Your task to perform on an android device: Show me popular videos on Youtube Image 0: 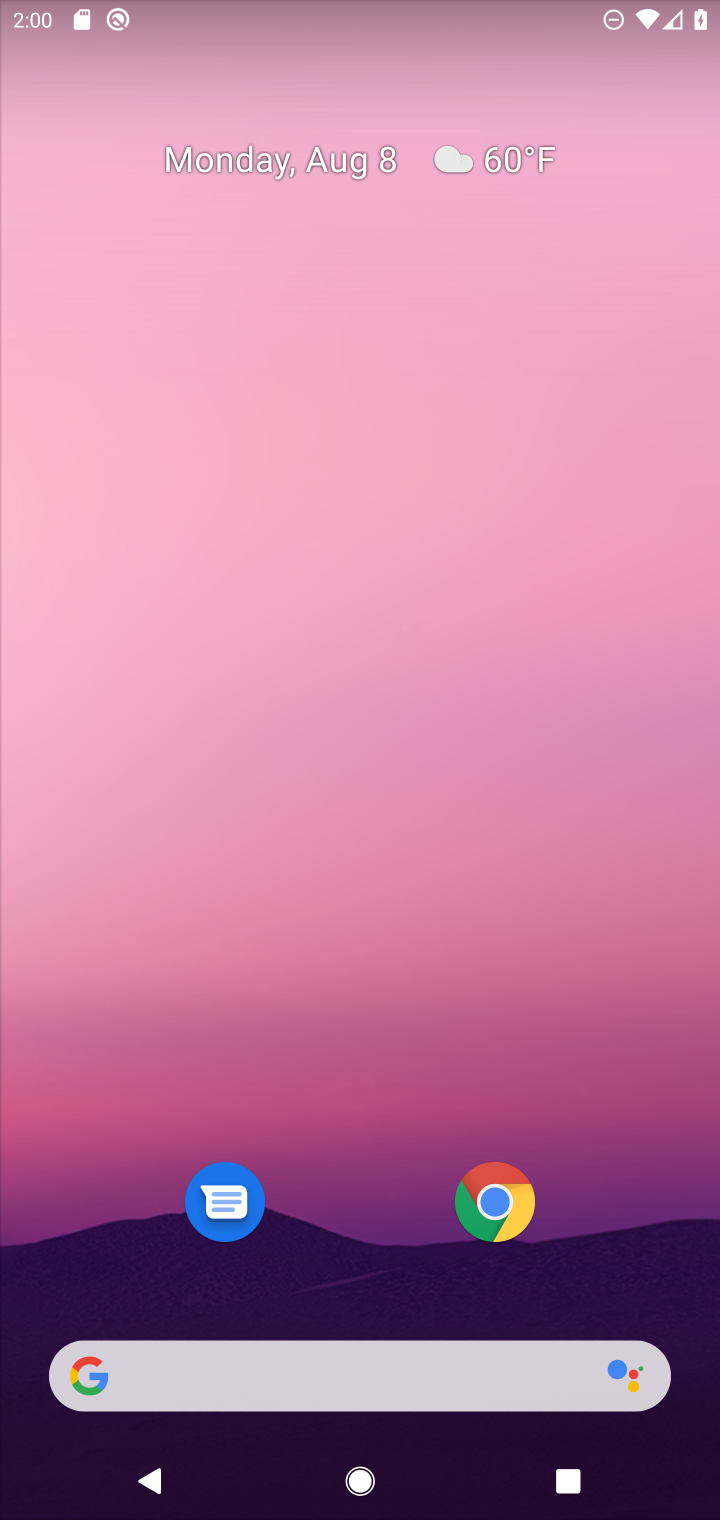
Step 0: press home button
Your task to perform on an android device: Show me popular videos on Youtube Image 1: 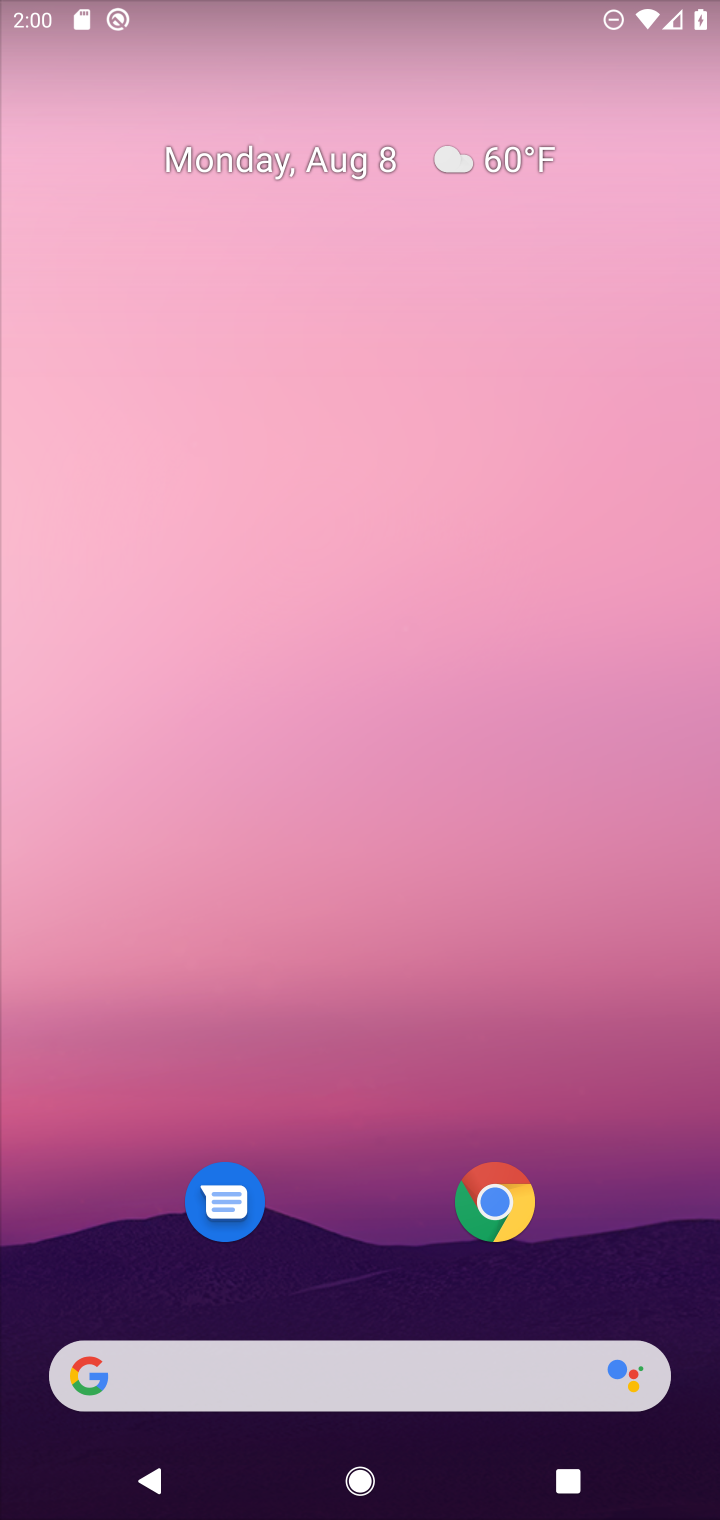
Step 1: drag from (366, 1252) to (402, 298)
Your task to perform on an android device: Show me popular videos on Youtube Image 2: 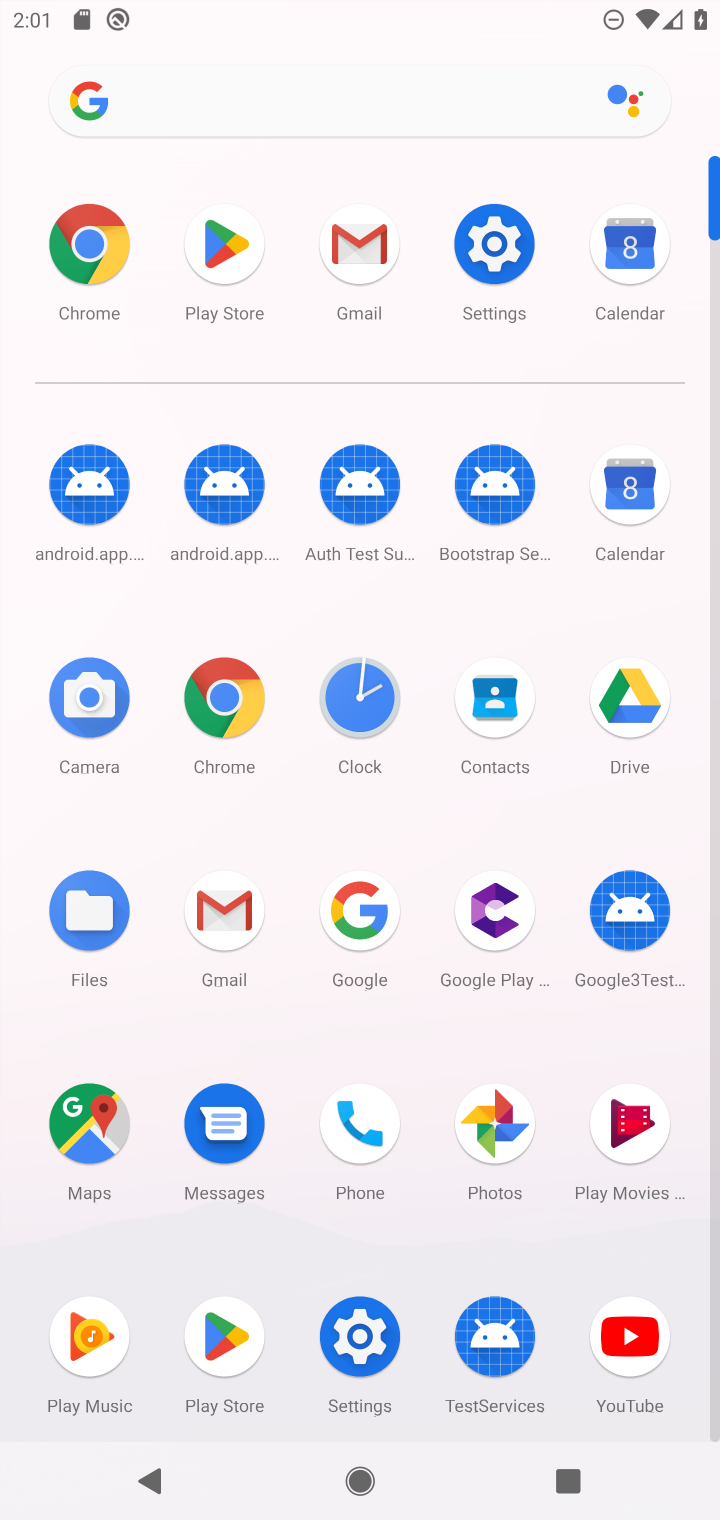
Step 2: click (623, 1334)
Your task to perform on an android device: Show me popular videos on Youtube Image 3: 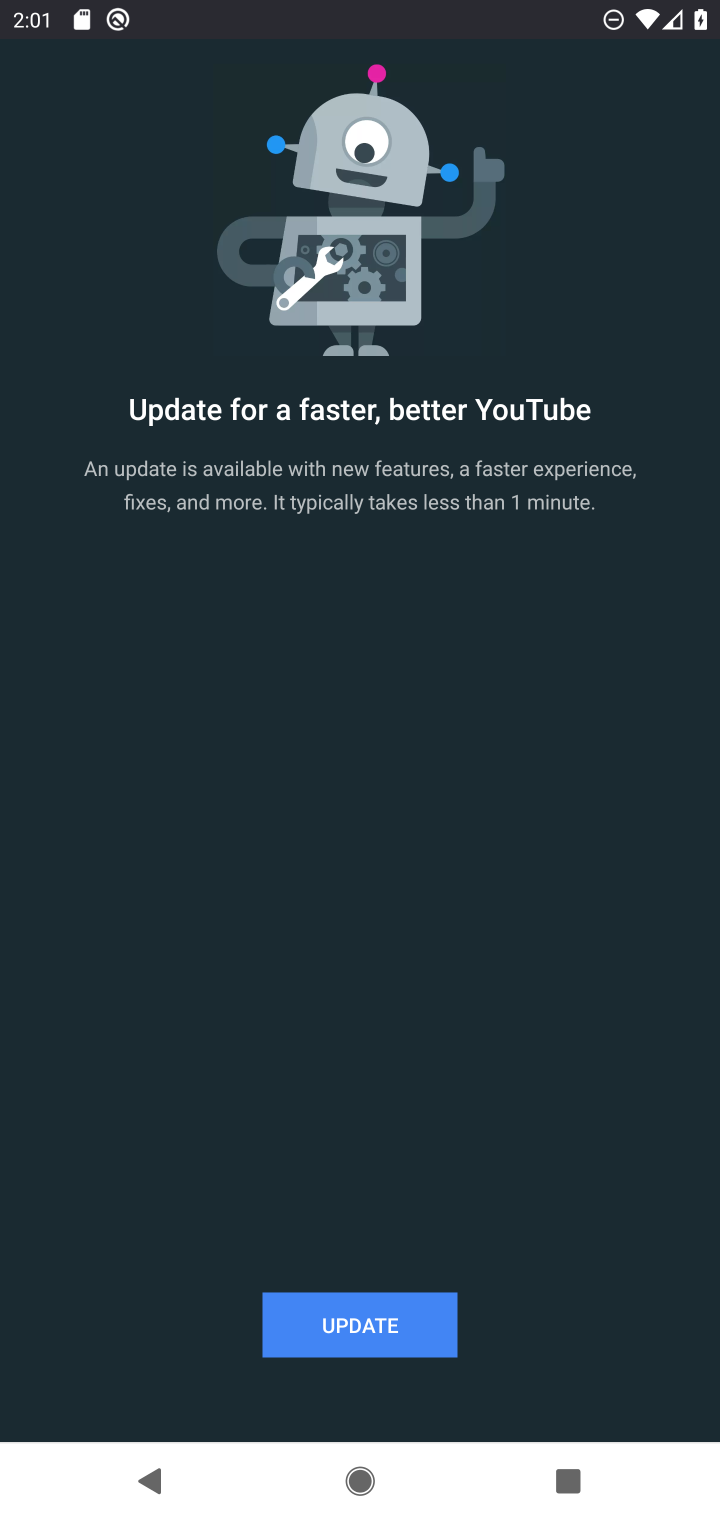
Step 3: click (368, 1337)
Your task to perform on an android device: Show me popular videos on Youtube Image 4: 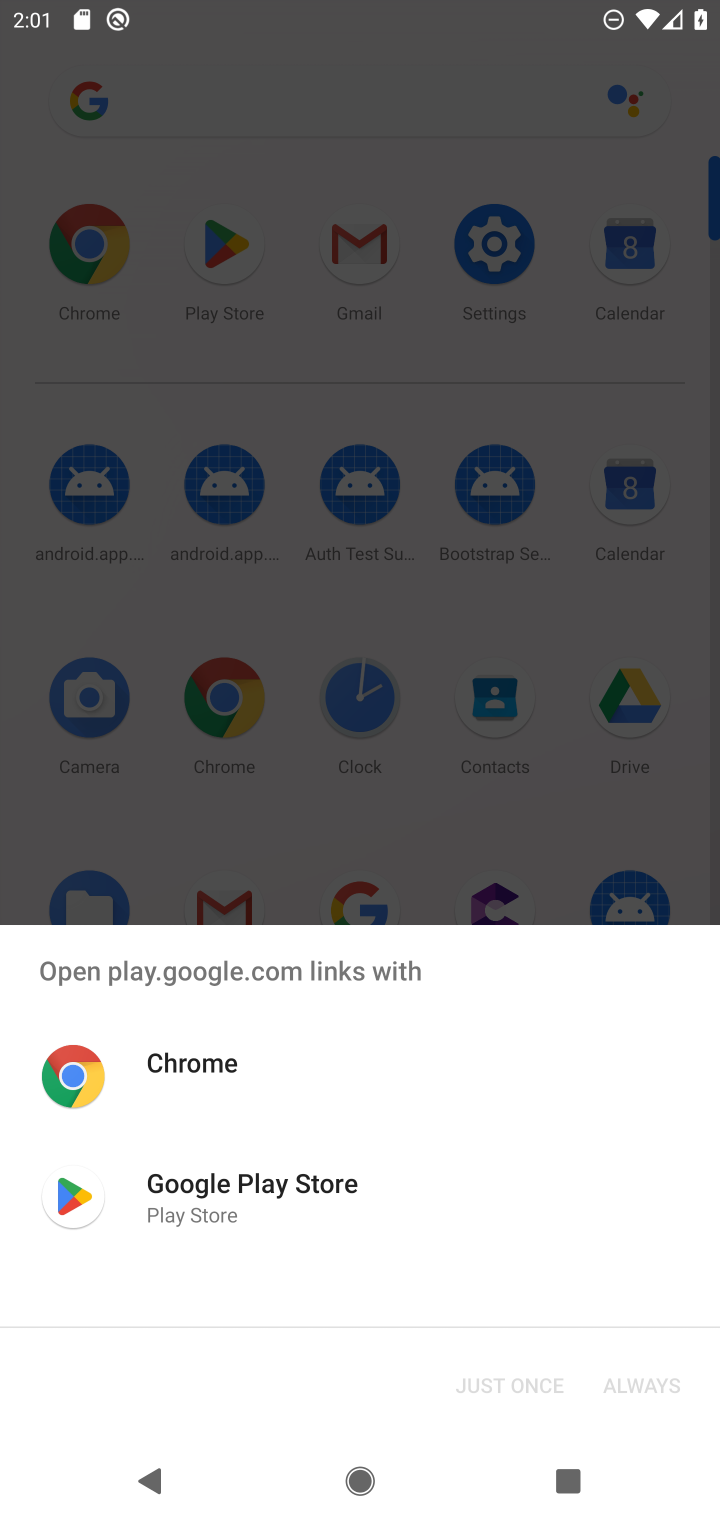
Step 4: click (242, 1180)
Your task to perform on an android device: Show me popular videos on Youtube Image 5: 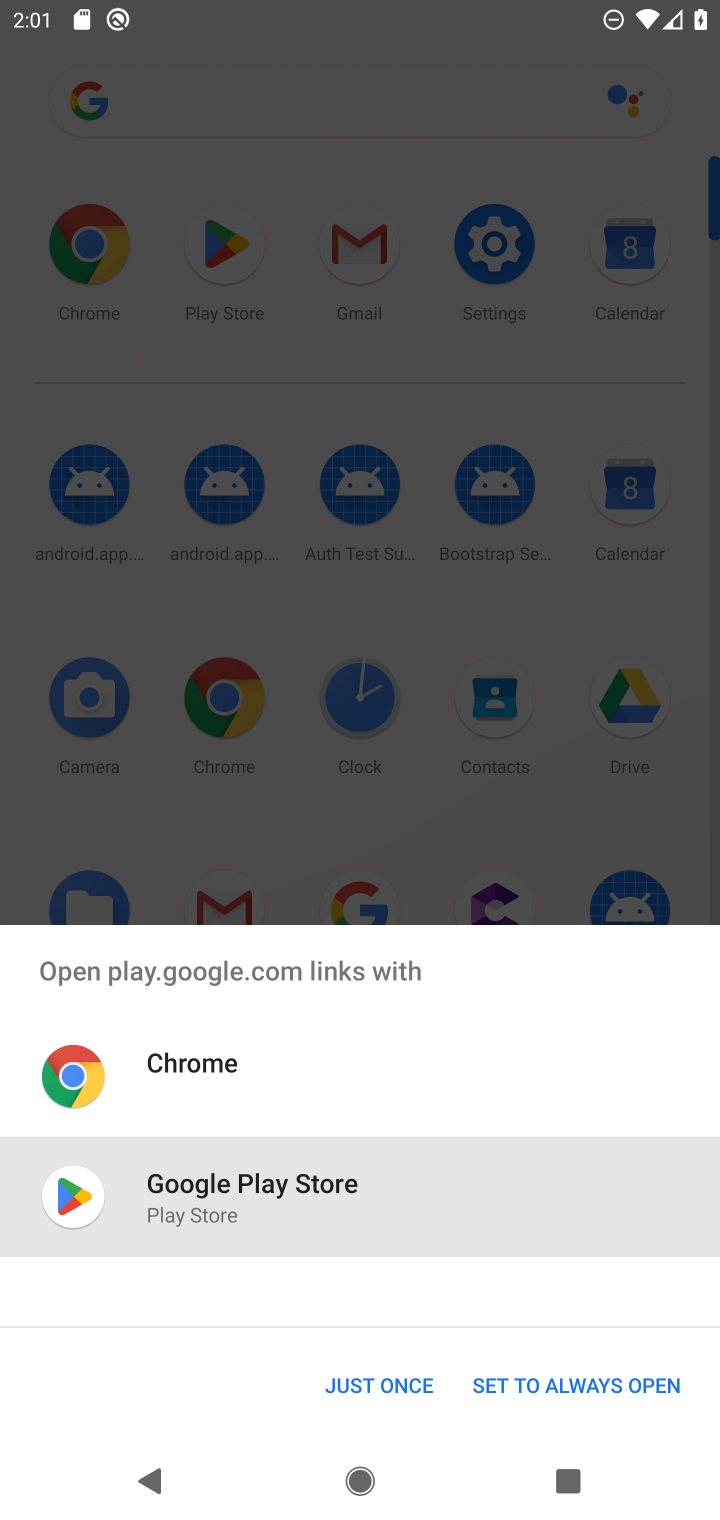
Step 5: click (392, 1377)
Your task to perform on an android device: Show me popular videos on Youtube Image 6: 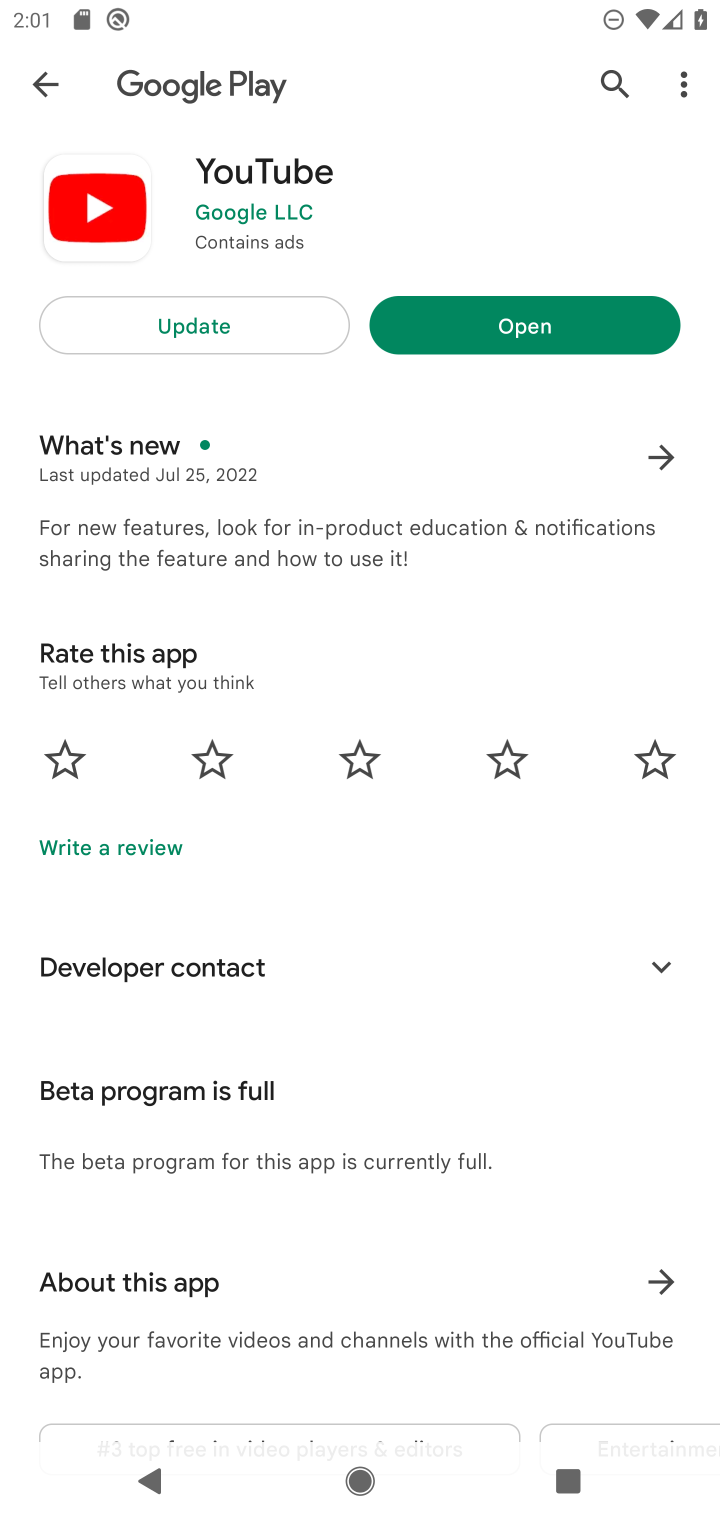
Step 6: click (208, 311)
Your task to perform on an android device: Show me popular videos on Youtube Image 7: 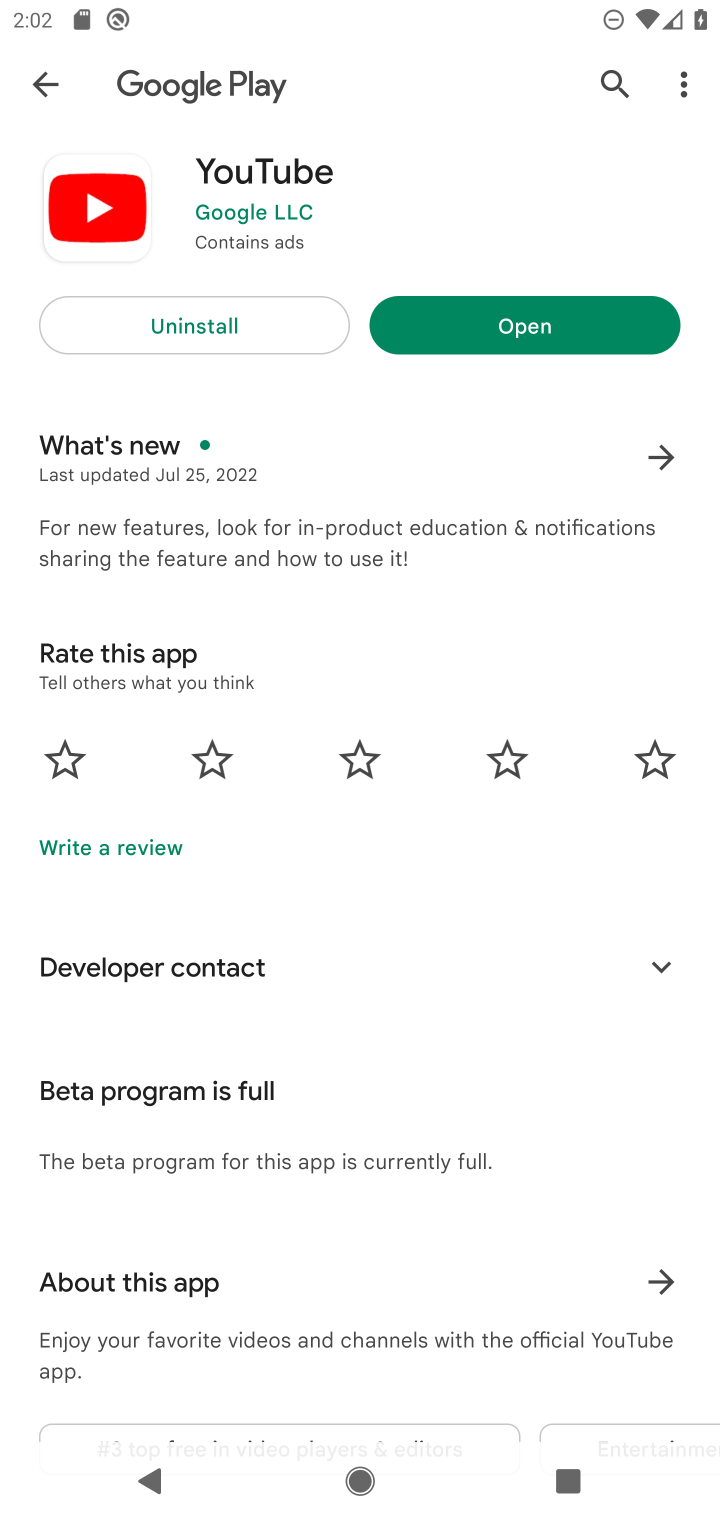
Step 7: click (546, 326)
Your task to perform on an android device: Show me popular videos on Youtube Image 8: 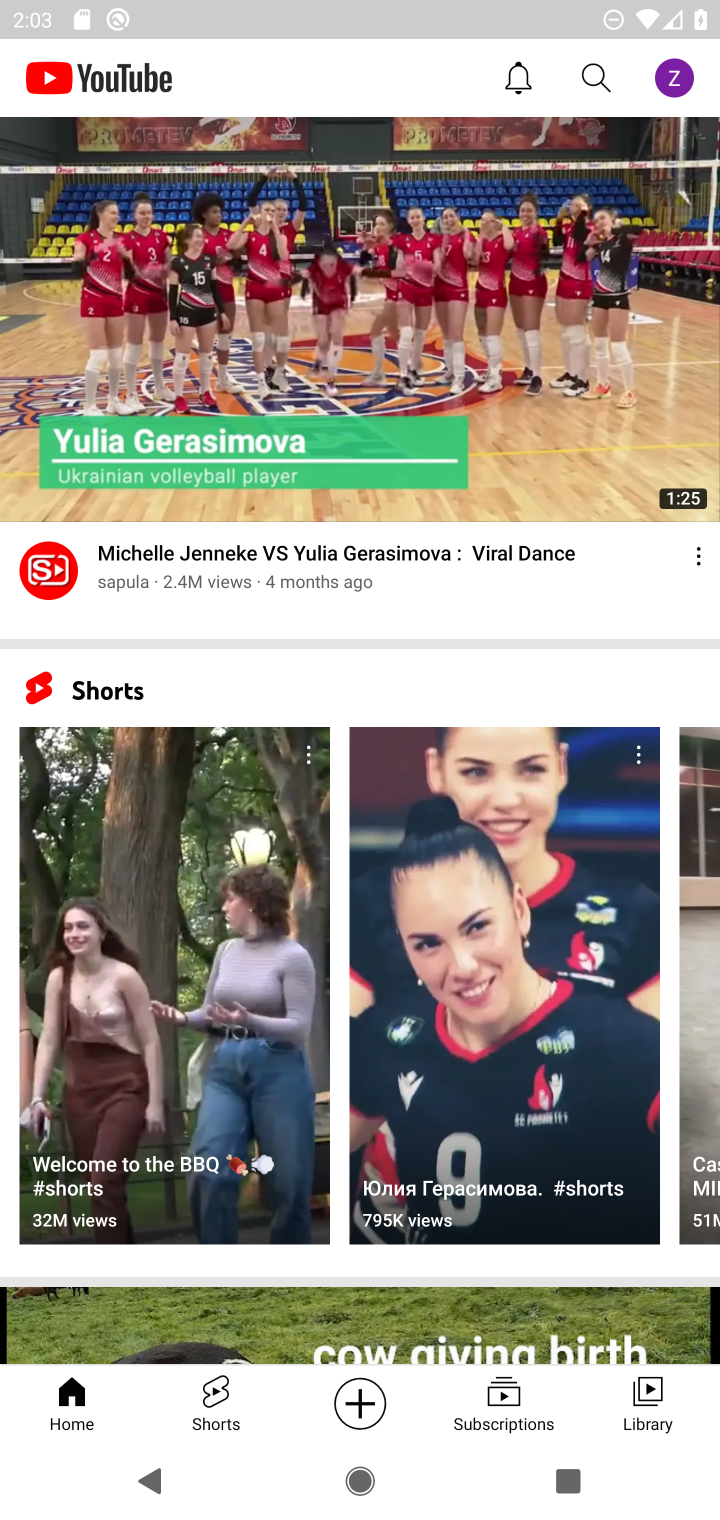
Step 8: task complete